Your task to perform on an android device: Open internet settings Image 0: 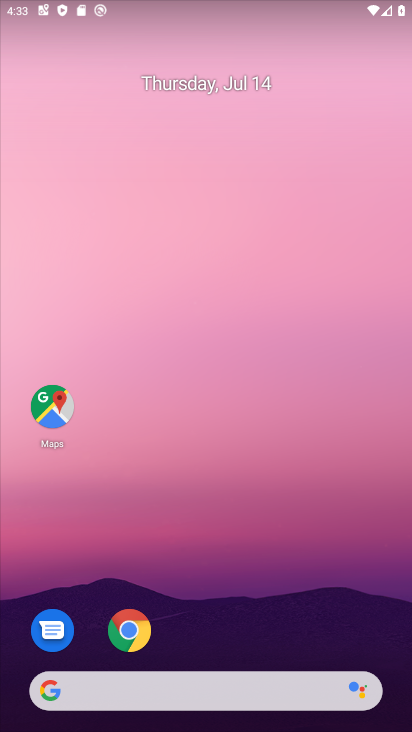
Step 0: drag from (231, 618) to (341, 12)
Your task to perform on an android device: Open internet settings Image 1: 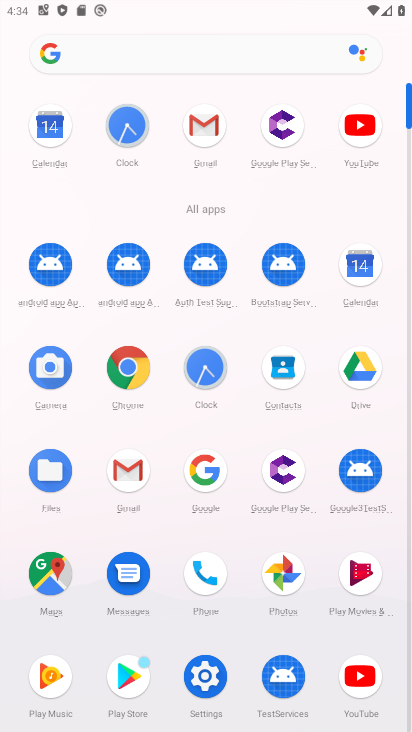
Step 1: click (207, 681)
Your task to perform on an android device: Open internet settings Image 2: 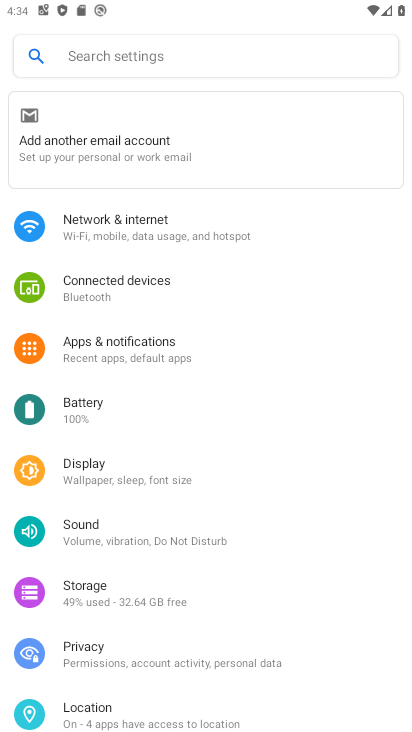
Step 2: click (128, 210)
Your task to perform on an android device: Open internet settings Image 3: 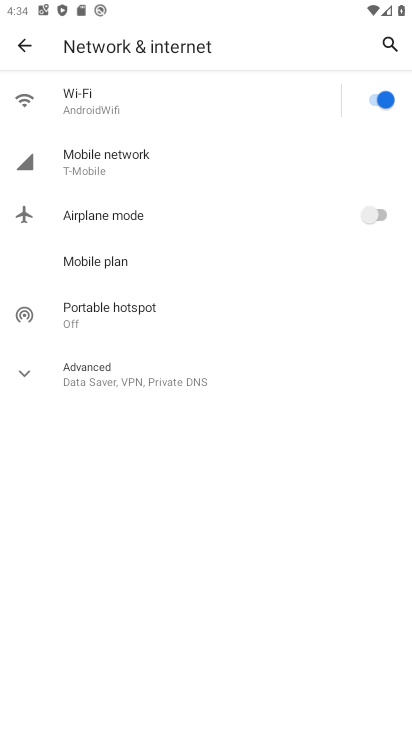
Step 3: task complete